Your task to perform on an android device: Open Google Chrome Image 0: 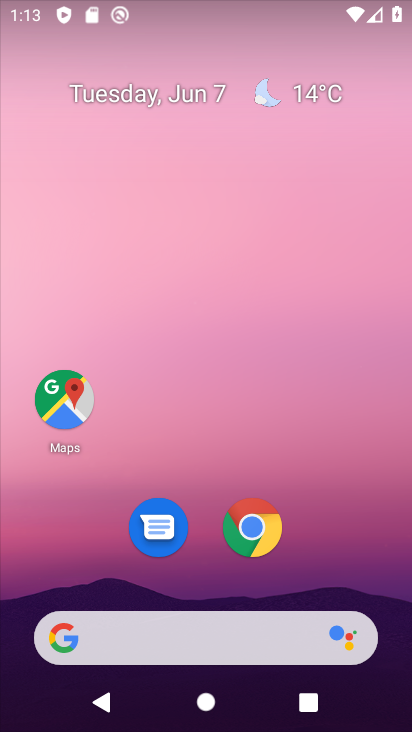
Step 0: click (244, 511)
Your task to perform on an android device: Open Google Chrome Image 1: 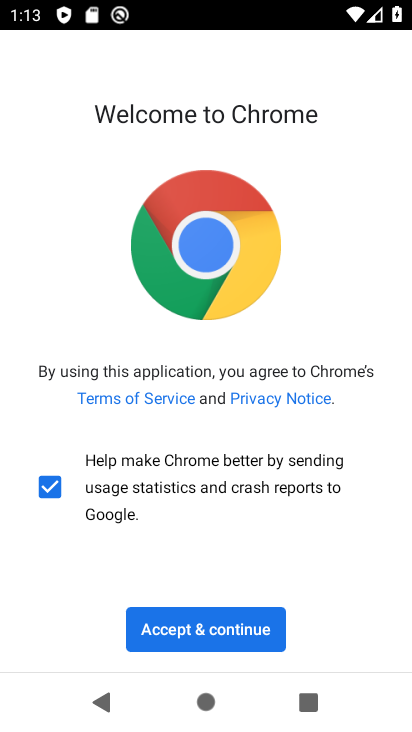
Step 1: click (231, 631)
Your task to perform on an android device: Open Google Chrome Image 2: 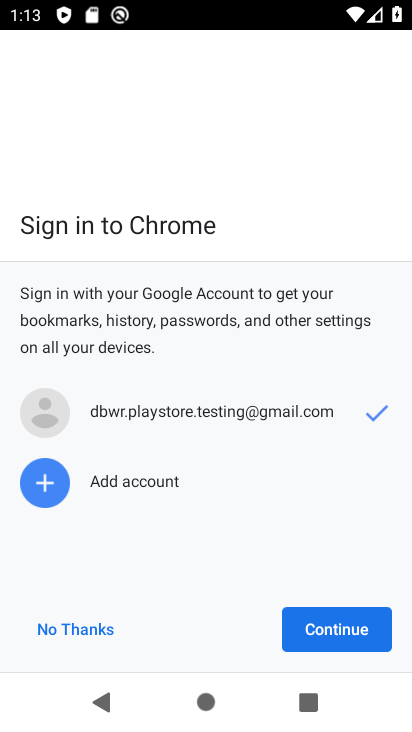
Step 2: click (347, 625)
Your task to perform on an android device: Open Google Chrome Image 3: 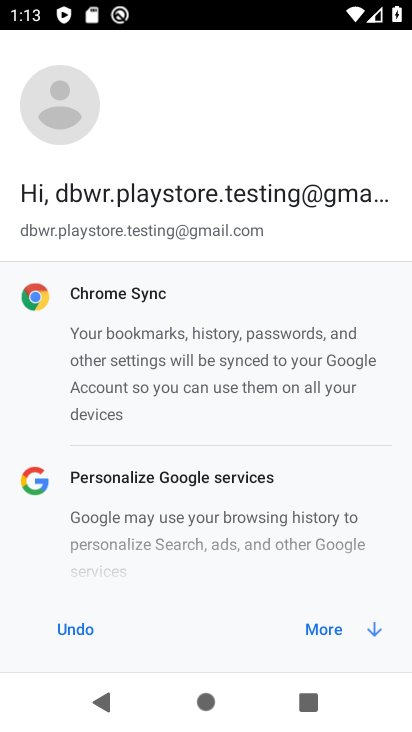
Step 3: click (327, 638)
Your task to perform on an android device: Open Google Chrome Image 4: 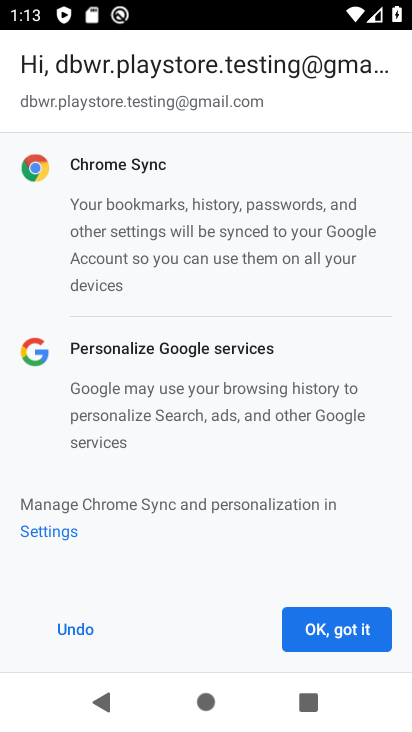
Step 4: click (327, 638)
Your task to perform on an android device: Open Google Chrome Image 5: 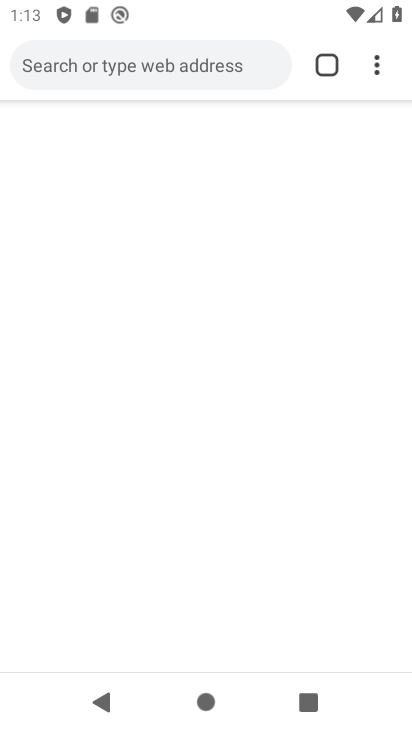
Step 5: task complete